Your task to perform on an android device: turn on javascript in the chrome app Image 0: 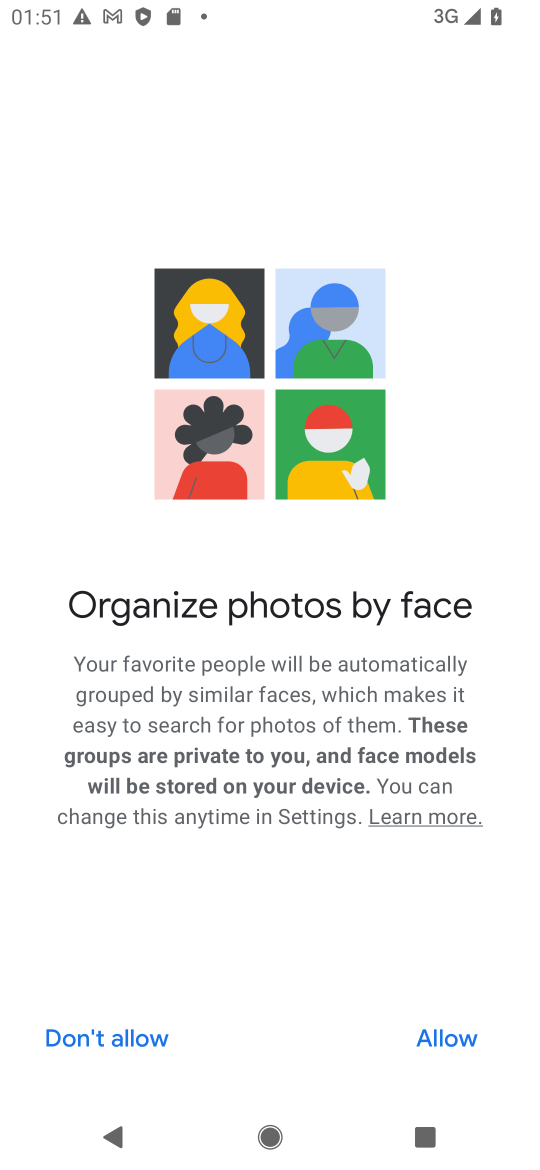
Step 0: press home button
Your task to perform on an android device: turn on javascript in the chrome app Image 1: 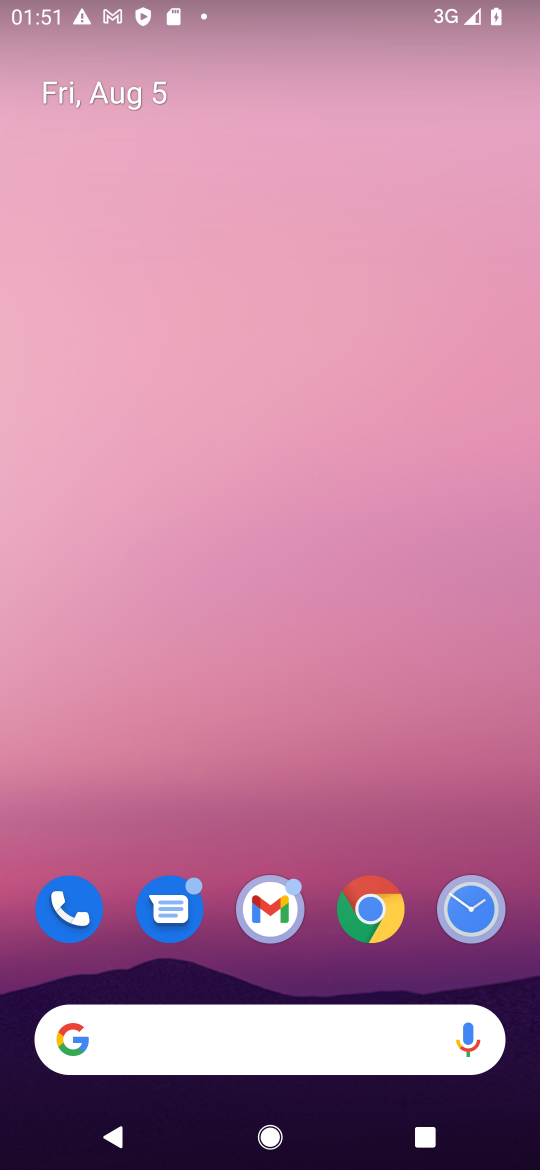
Step 1: click (365, 907)
Your task to perform on an android device: turn on javascript in the chrome app Image 2: 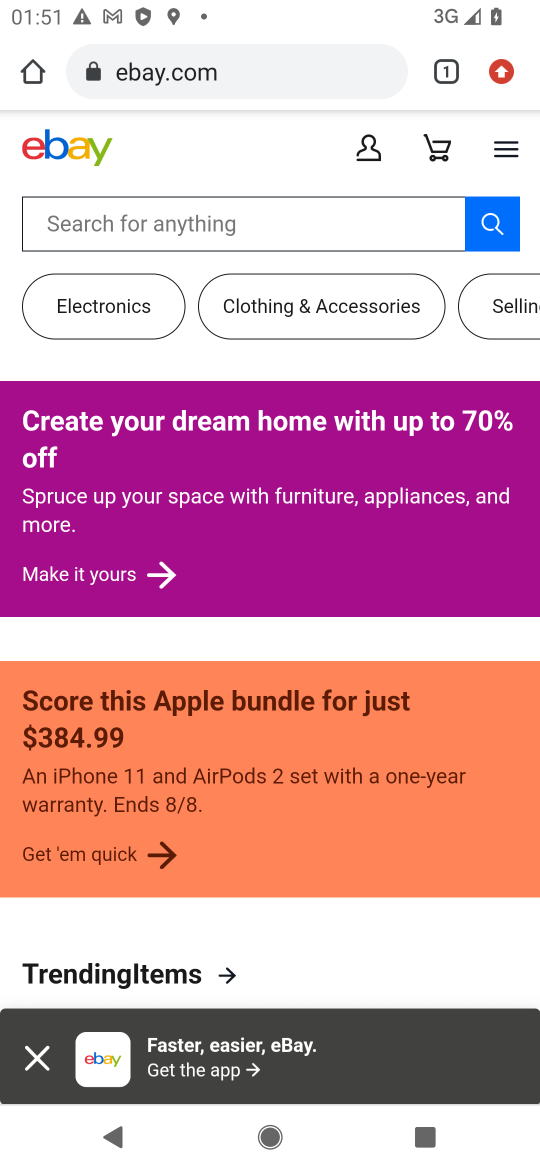
Step 2: click (505, 72)
Your task to perform on an android device: turn on javascript in the chrome app Image 3: 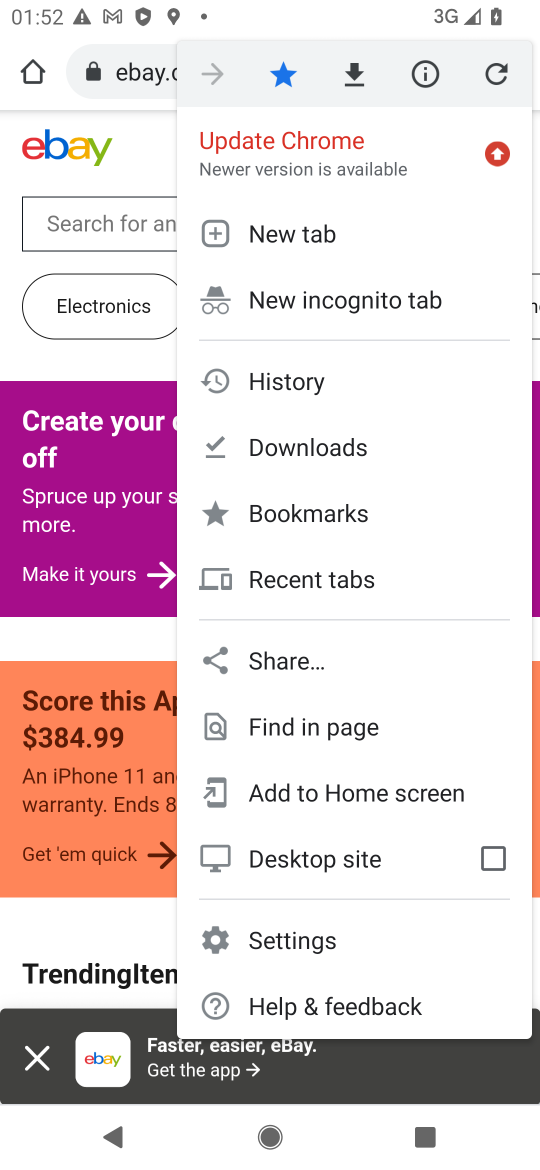
Step 3: click (286, 928)
Your task to perform on an android device: turn on javascript in the chrome app Image 4: 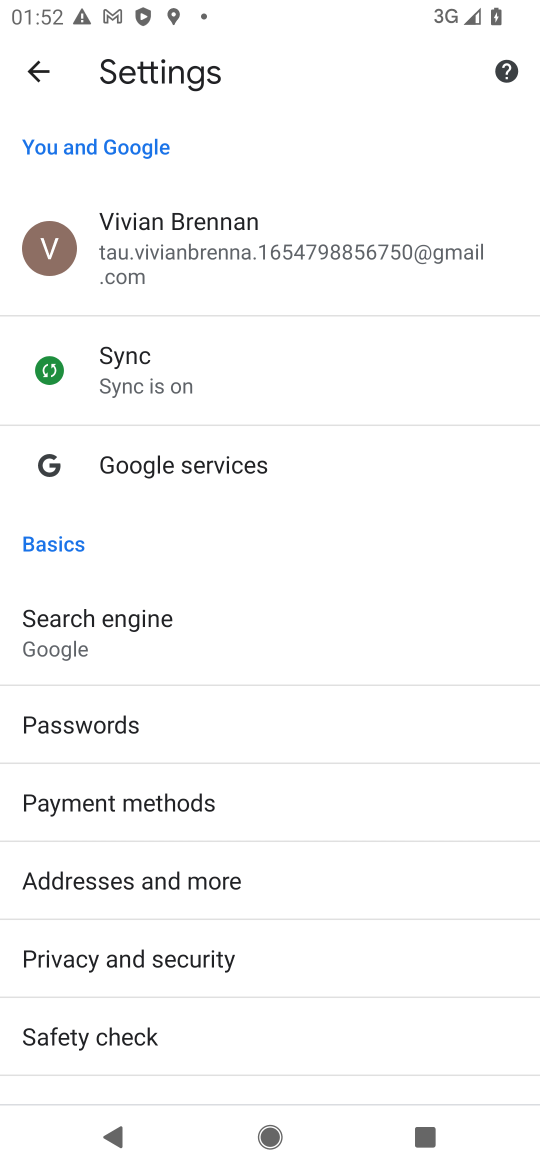
Step 4: drag from (330, 945) to (337, 423)
Your task to perform on an android device: turn on javascript in the chrome app Image 5: 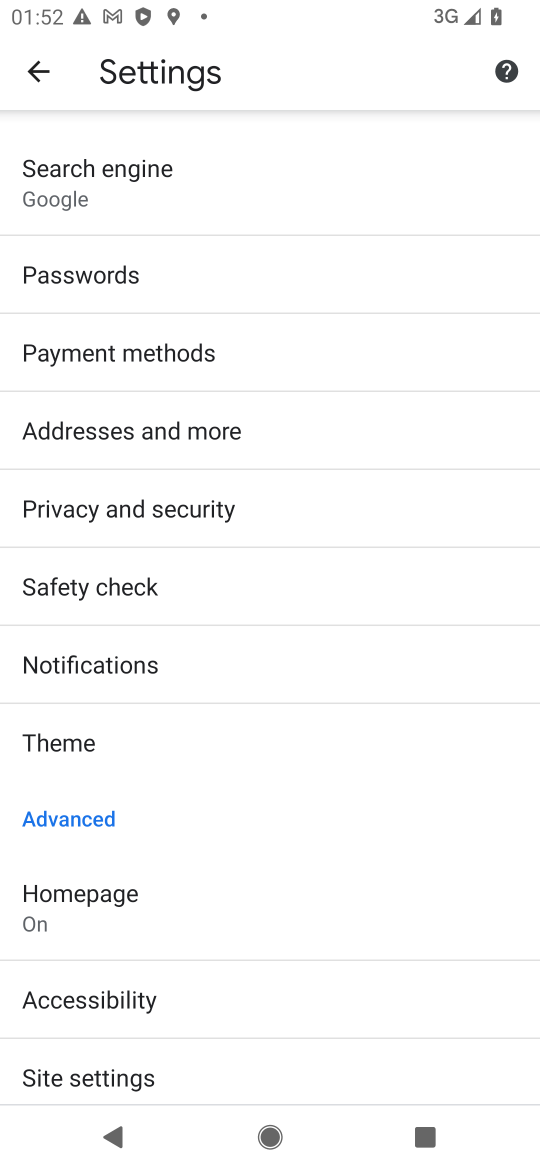
Step 5: click (72, 1073)
Your task to perform on an android device: turn on javascript in the chrome app Image 6: 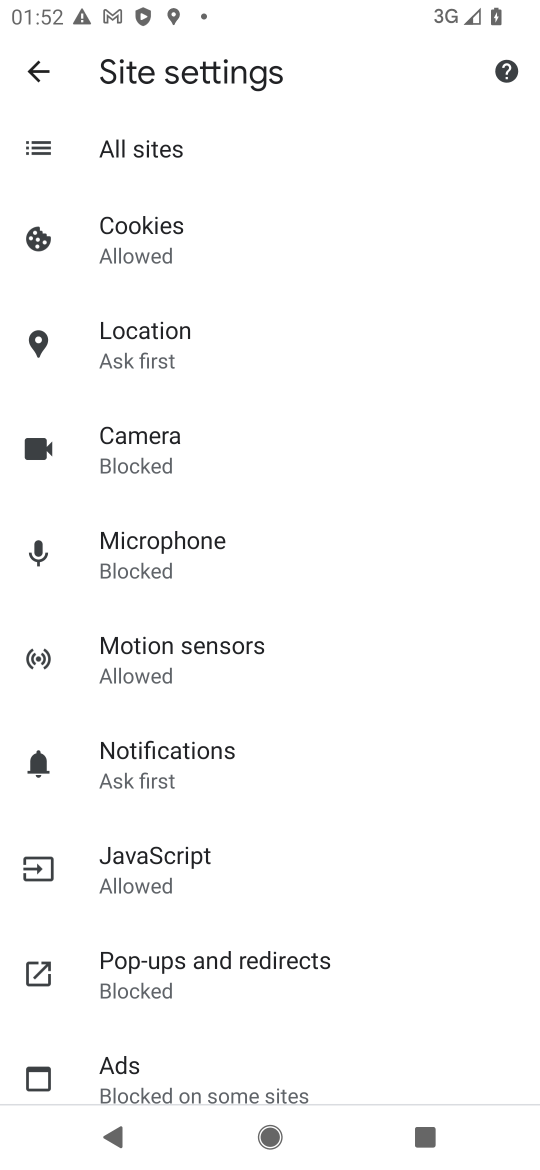
Step 6: click (153, 844)
Your task to perform on an android device: turn on javascript in the chrome app Image 7: 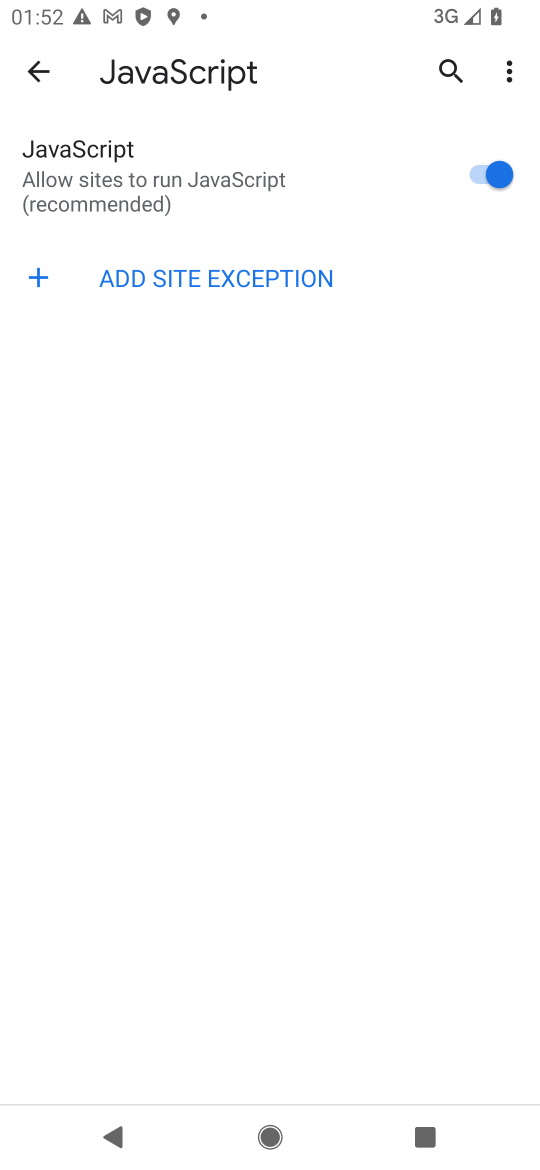
Step 7: task complete